Your task to perform on an android device: Turn off the flashlight Image 0: 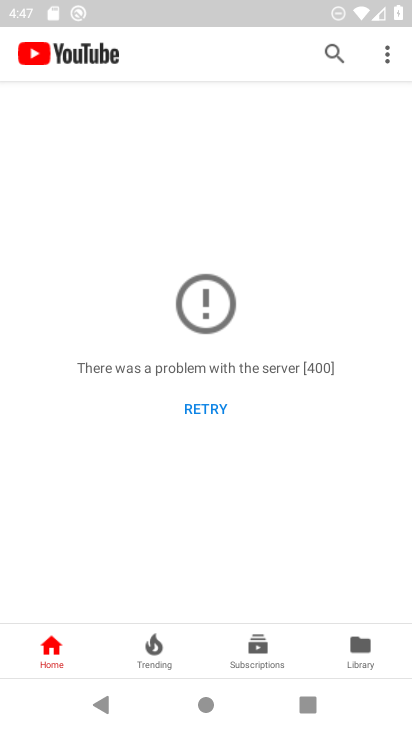
Step 0: press back button
Your task to perform on an android device: Turn off the flashlight Image 1: 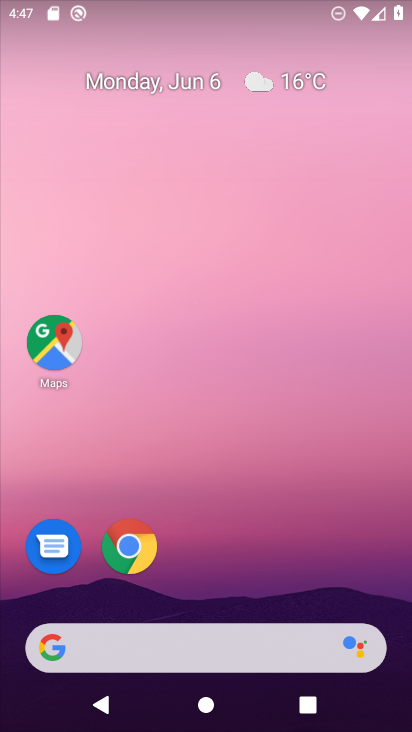
Step 1: drag from (215, 606) to (194, 5)
Your task to perform on an android device: Turn off the flashlight Image 2: 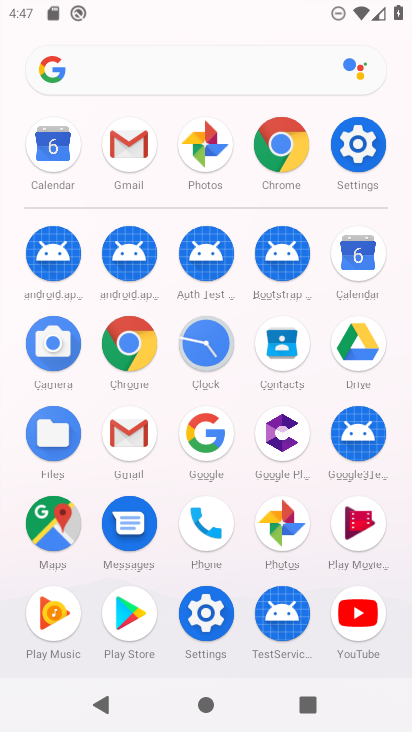
Step 2: click (358, 145)
Your task to perform on an android device: Turn off the flashlight Image 3: 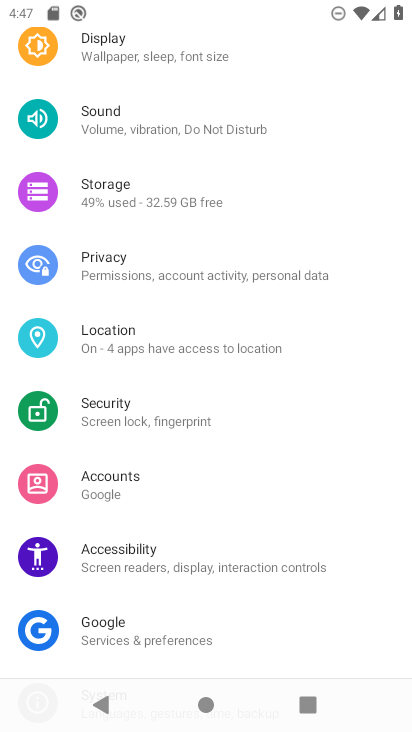
Step 3: task complete